Your task to perform on an android device: turn pop-ups off in chrome Image 0: 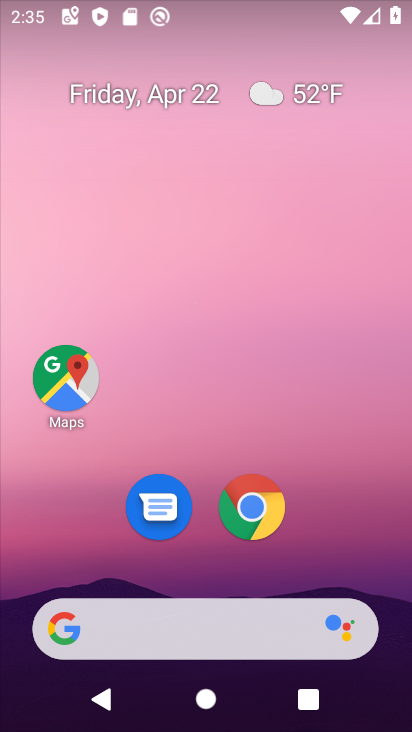
Step 0: drag from (186, 405) to (242, 50)
Your task to perform on an android device: turn pop-ups off in chrome Image 1: 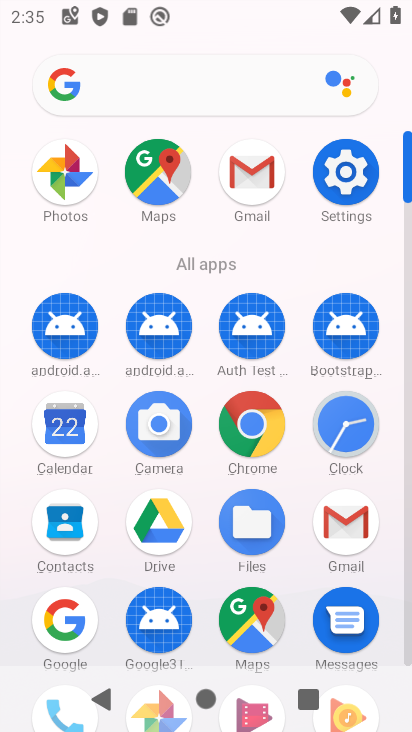
Step 1: click (268, 432)
Your task to perform on an android device: turn pop-ups off in chrome Image 2: 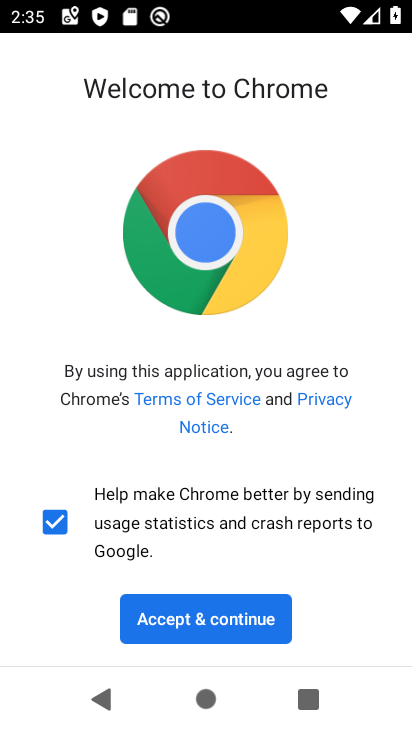
Step 2: click (229, 631)
Your task to perform on an android device: turn pop-ups off in chrome Image 3: 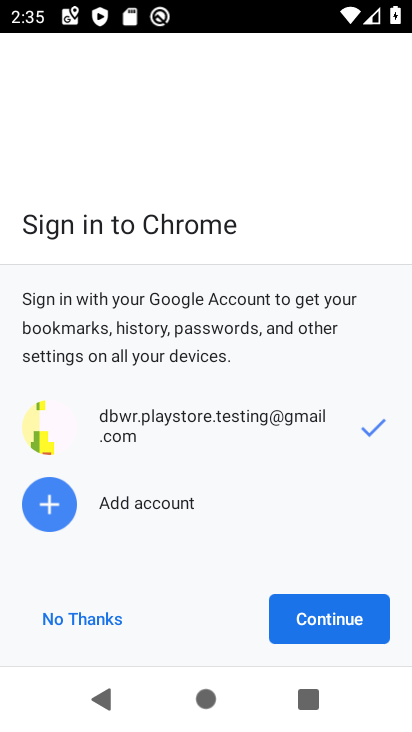
Step 3: click (359, 613)
Your task to perform on an android device: turn pop-ups off in chrome Image 4: 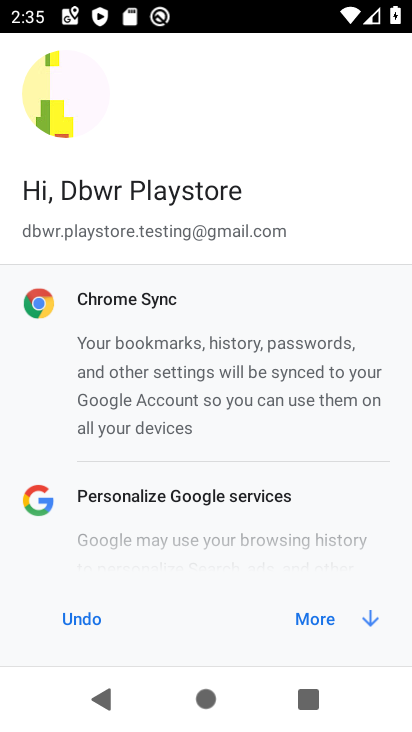
Step 4: click (345, 620)
Your task to perform on an android device: turn pop-ups off in chrome Image 5: 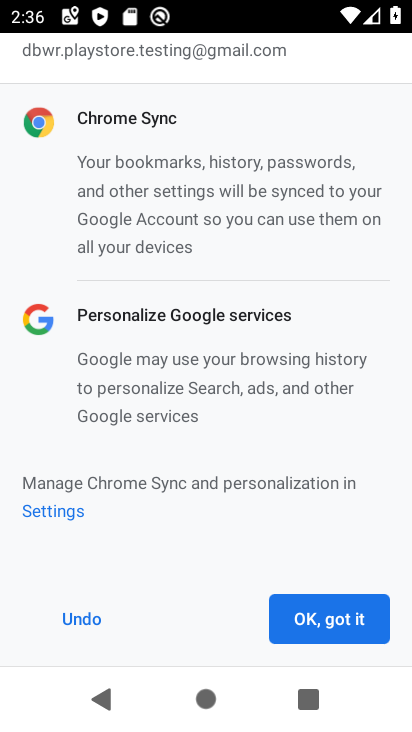
Step 5: click (307, 628)
Your task to perform on an android device: turn pop-ups off in chrome Image 6: 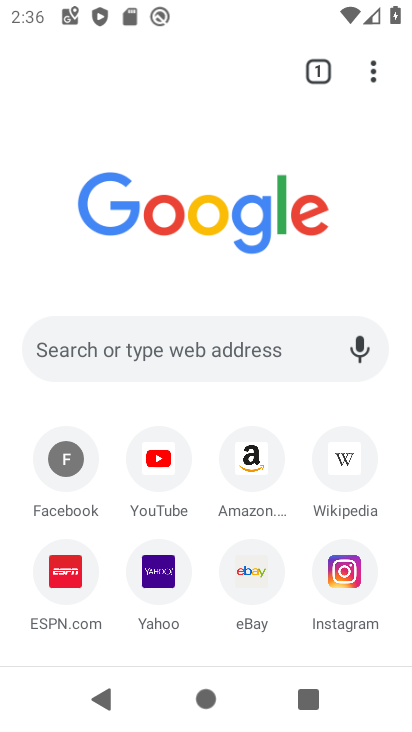
Step 6: drag from (373, 75) to (269, 518)
Your task to perform on an android device: turn pop-ups off in chrome Image 7: 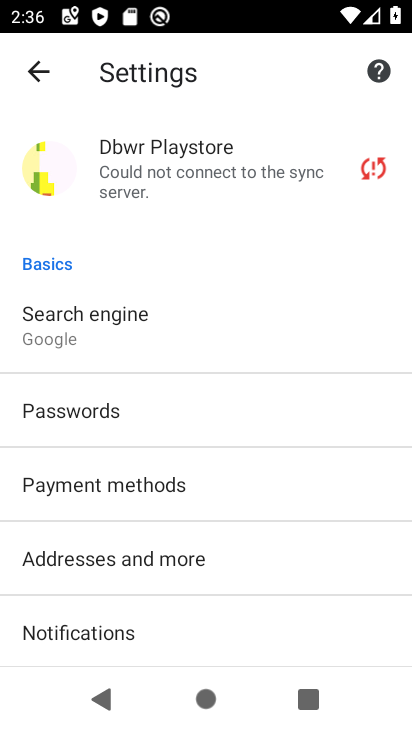
Step 7: drag from (200, 589) to (302, 195)
Your task to perform on an android device: turn pop-ups off in chrome Image 8: 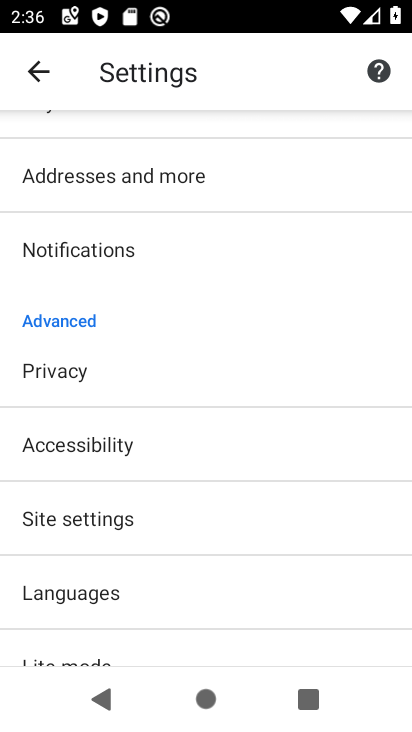
Step 8: click (177, 536)
Your task to perform on an android device: turn pop-ups off in chrome Image 9: 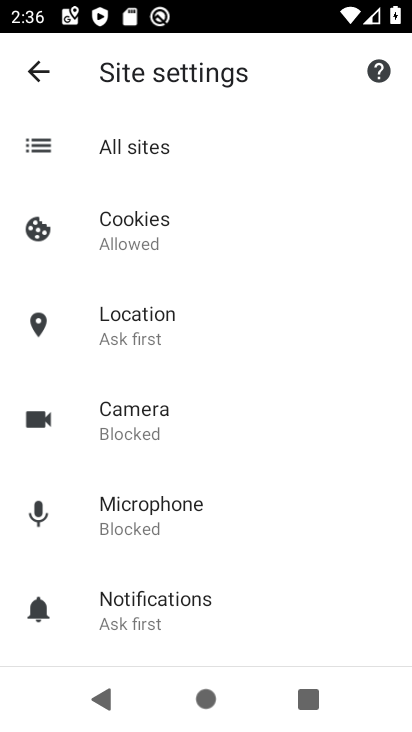
Step 9: drag from (174, 602) to (245, 181)
Your task to perform on an android device: turn pop-ups off in chrome Image 10: 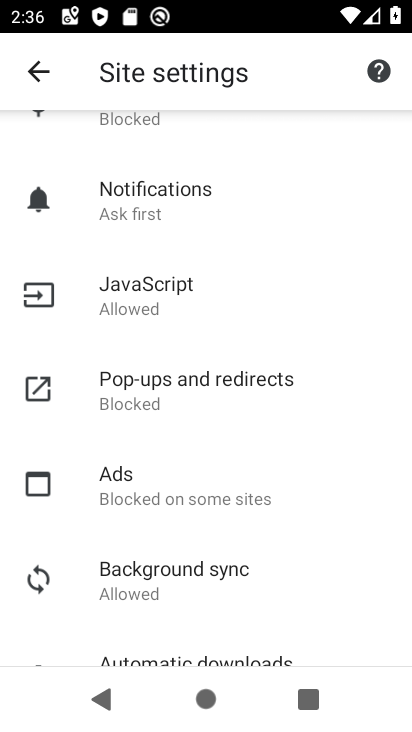
Step 10: click (211, 384)
Your task to perform on an android device: turn pop-ups off in chrome Image 11: 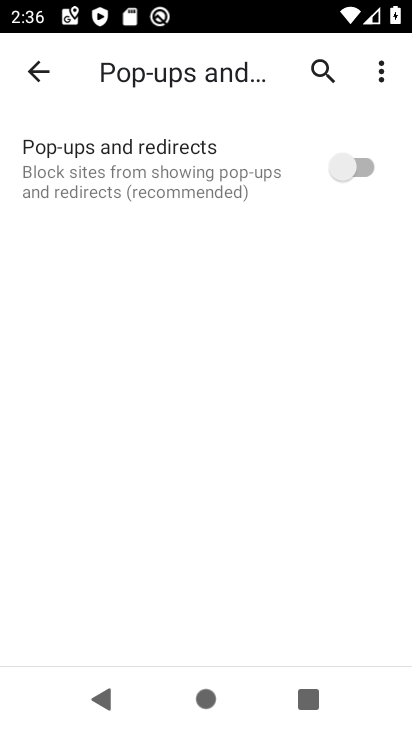
Step 11: task complete